Your task to perform on an android device: Search for razer kraken on bestbuy.com, select the first entry, add it to the cart, then select checkout. Image 0: 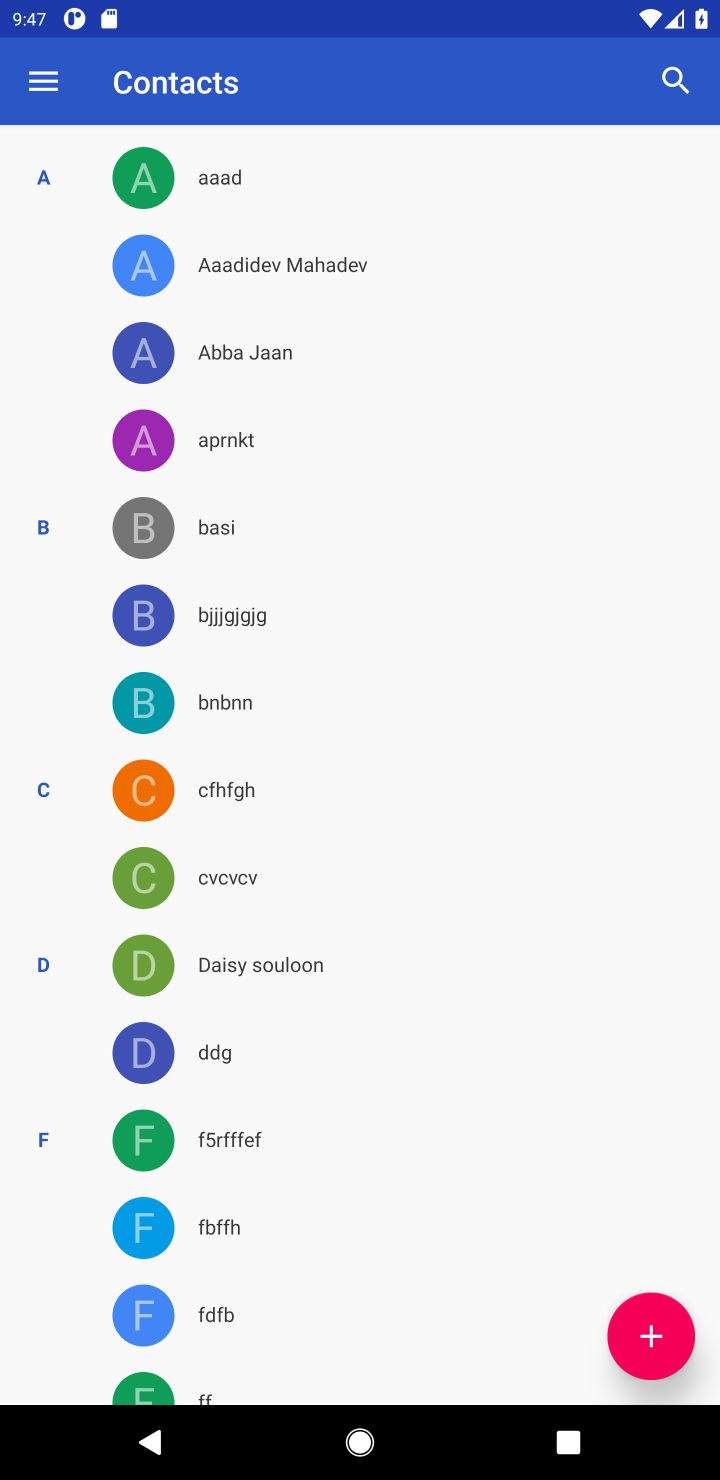
Step 0: press home button
Your task to perform on an android device: Search for razer kraken on bestbuy.com, select the first entry, add it to the cart, then select checkout. Image 1: 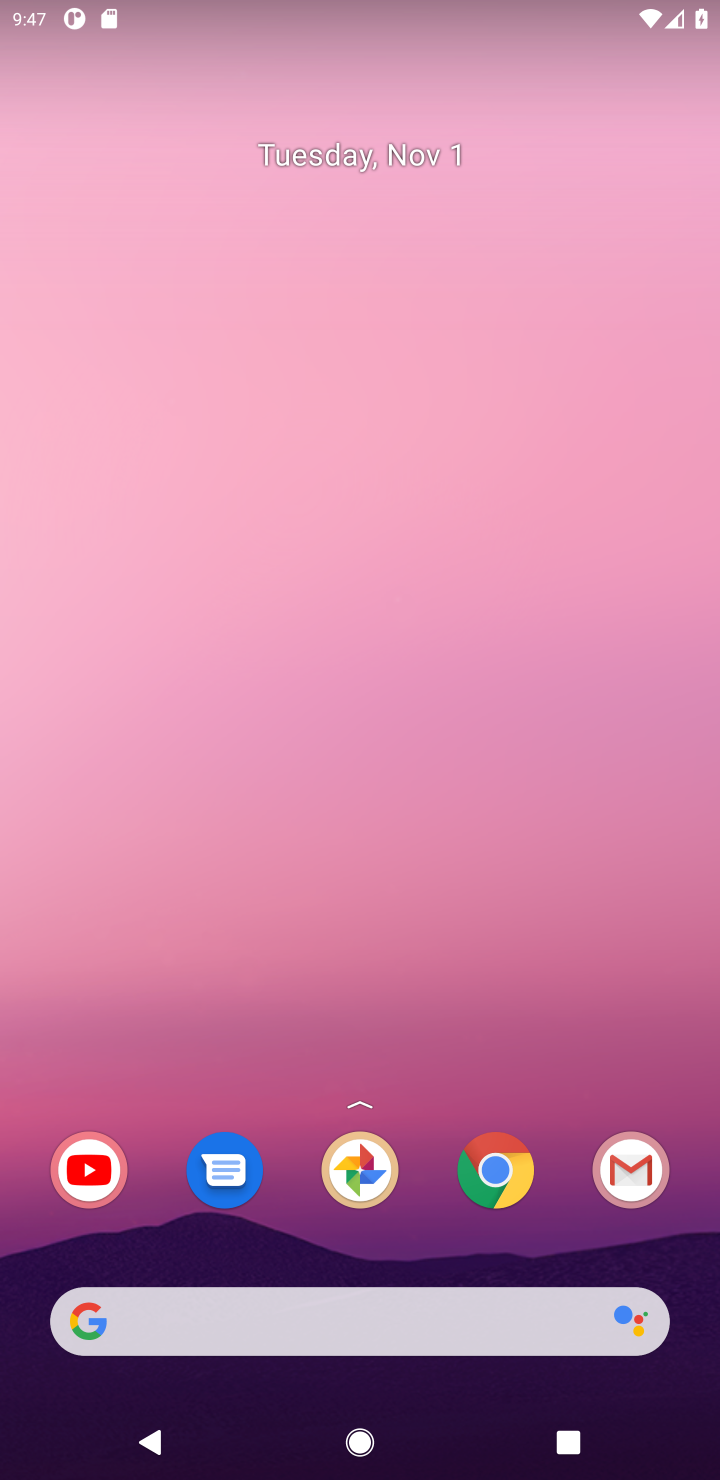
Step 1: click (500, 1175)
Your task to perform on an android device: Search for razer kraken on bestbuy.com, select the first entry, add it to the cart, then select checkout. Image 2: 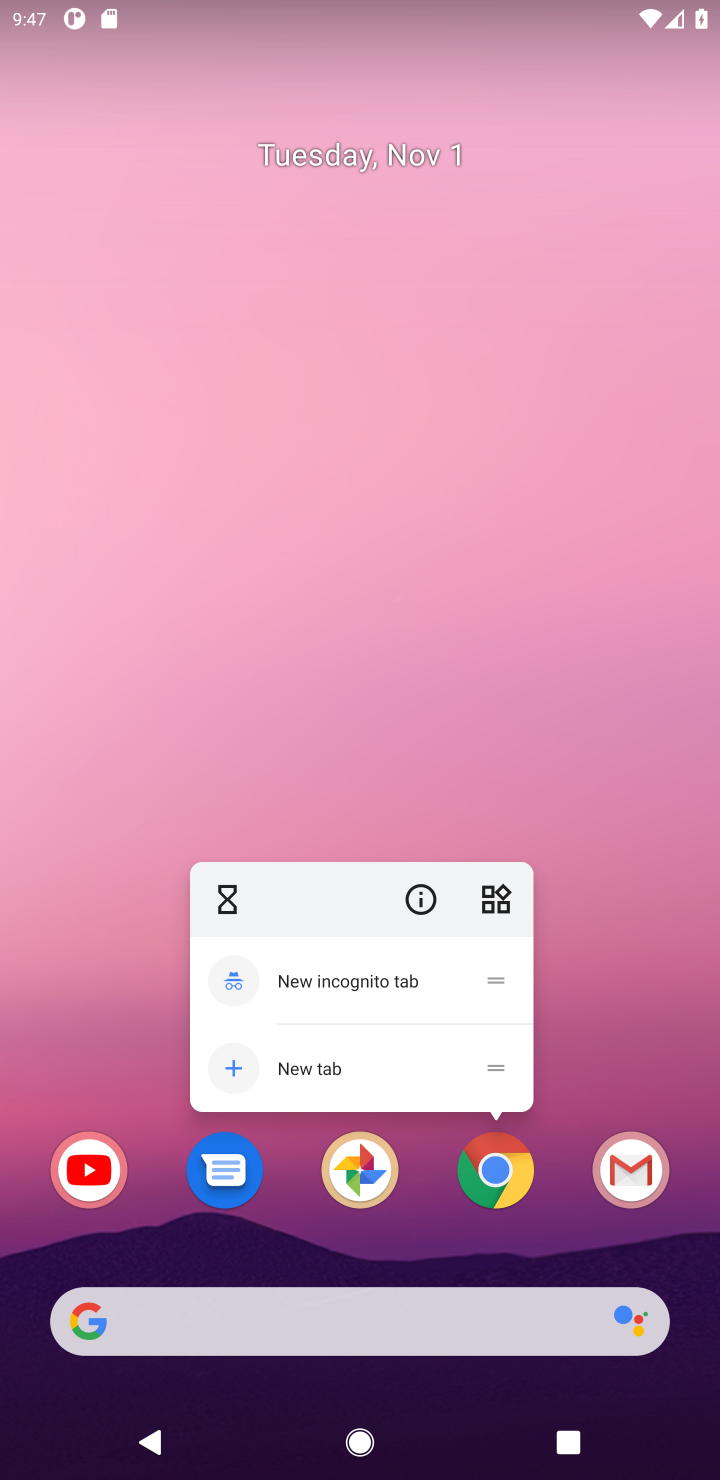
Step 2: click (521, 1194)
Your task to perform on an android device: Search for razer kraken on bestbuy.com, select the first entry, add it to the cart, then select checkout. Image 3: 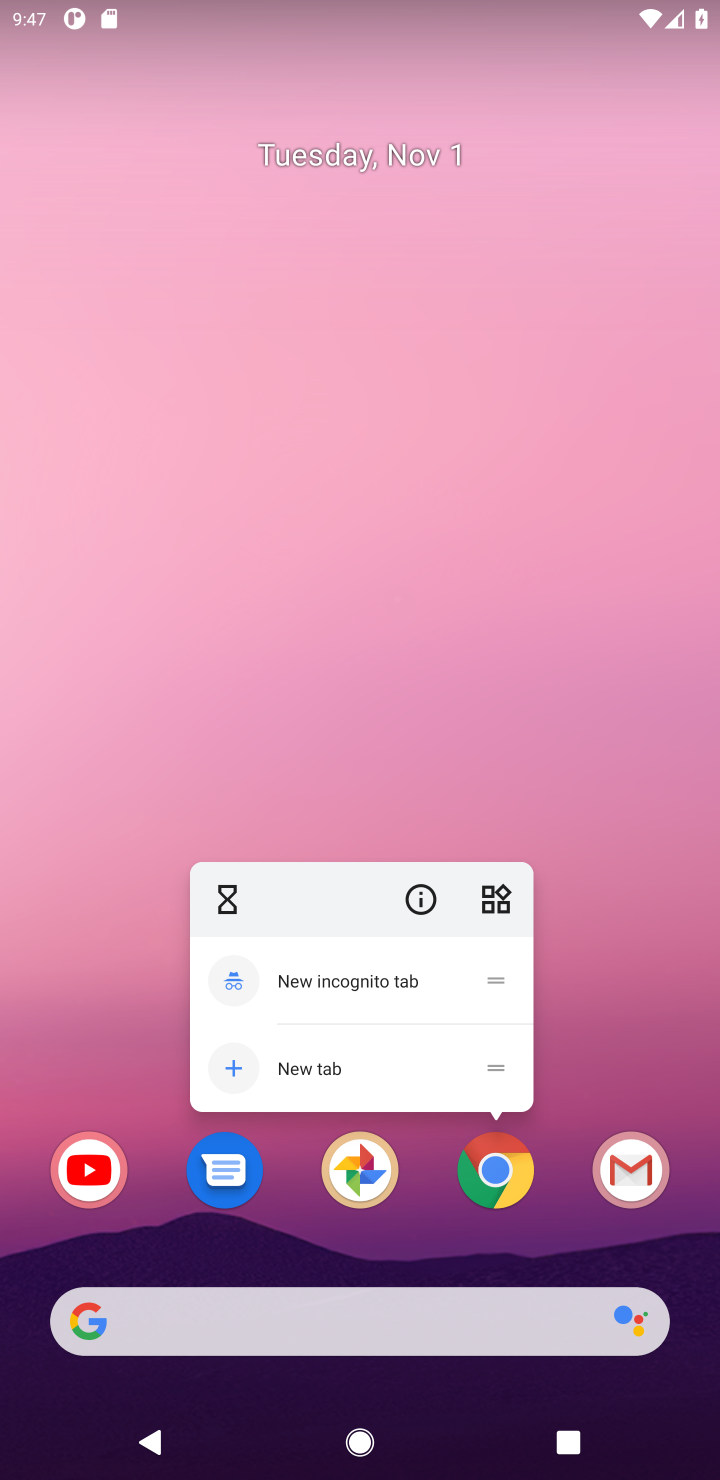
Step 3: click (516, 1165)
Your task to perform on an android device: Search for razer kraken on bestbuy.com, select the first entry, add it to the cart, then select checkout. Image 4: 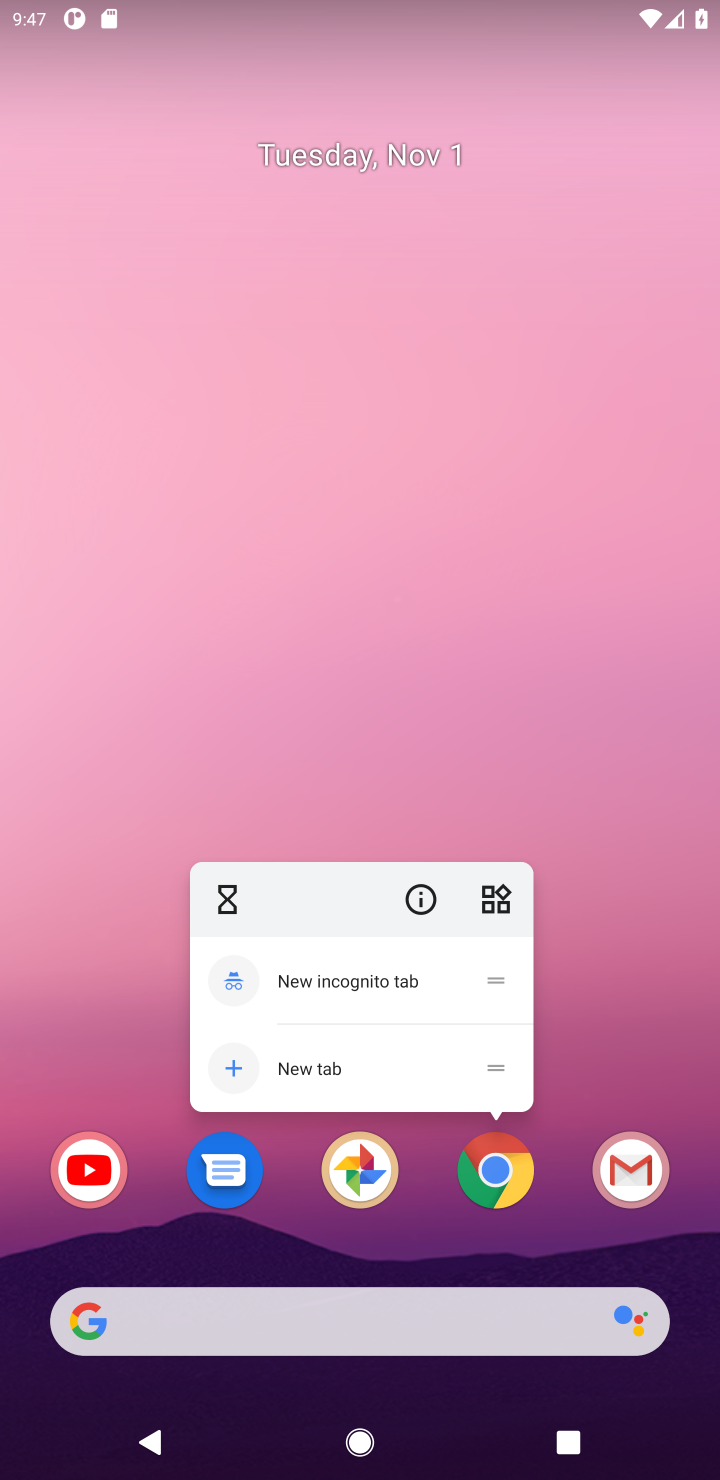
Step 4: click (496, 1187)
Your task to perform on an android device: Search for razer kraken on bestbuy.com, select the first entry, add it to the cart, then select checkout. Image 5: 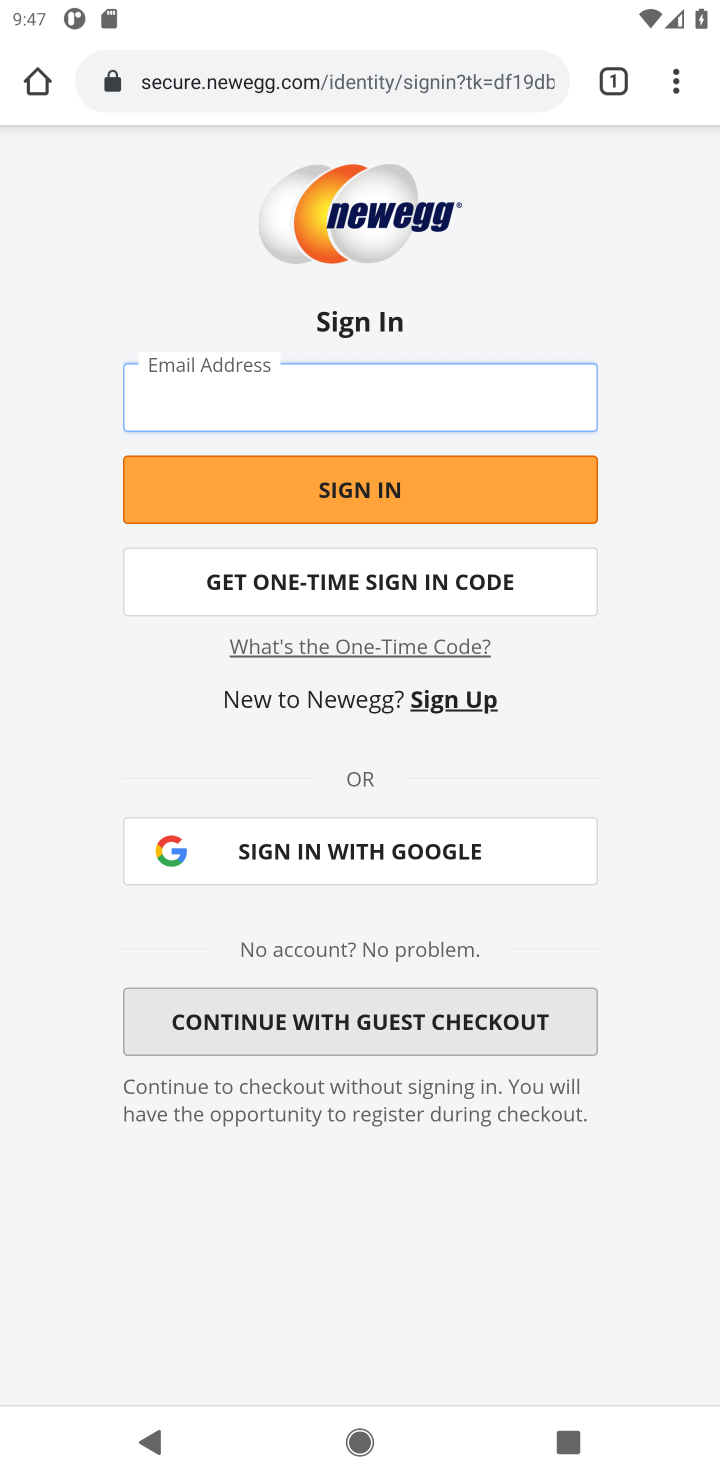
Step 5: click (407, 67)
Your task to perform on an android device: Search for razer kraken on bestbuy.com, select the first entry, add it to the cart, then select checkout. Image 6: 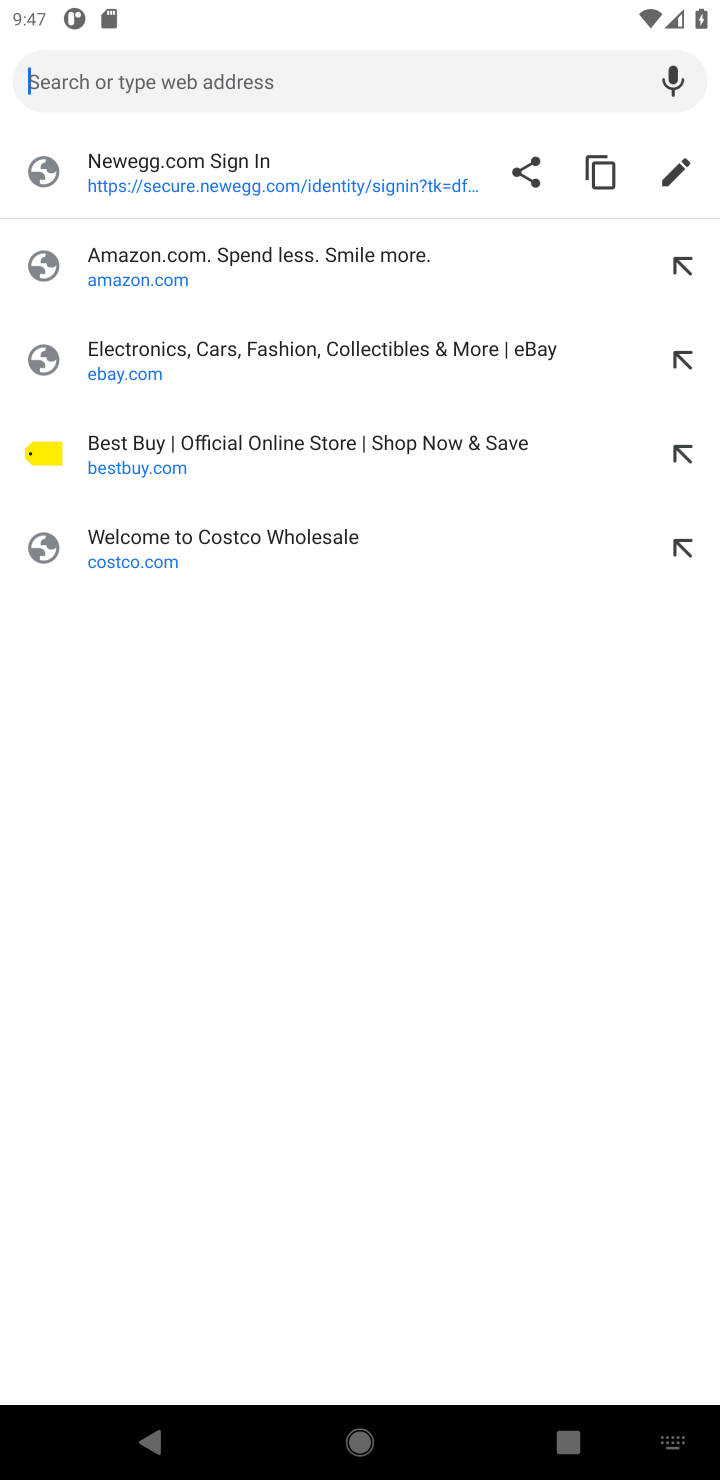
Step 6: type "bestbuy.com"
Your task to perform on an android device: Search for razer kraken on bestbuy.com, select the first entry, add it to the cart, then select checkout. Image 7: 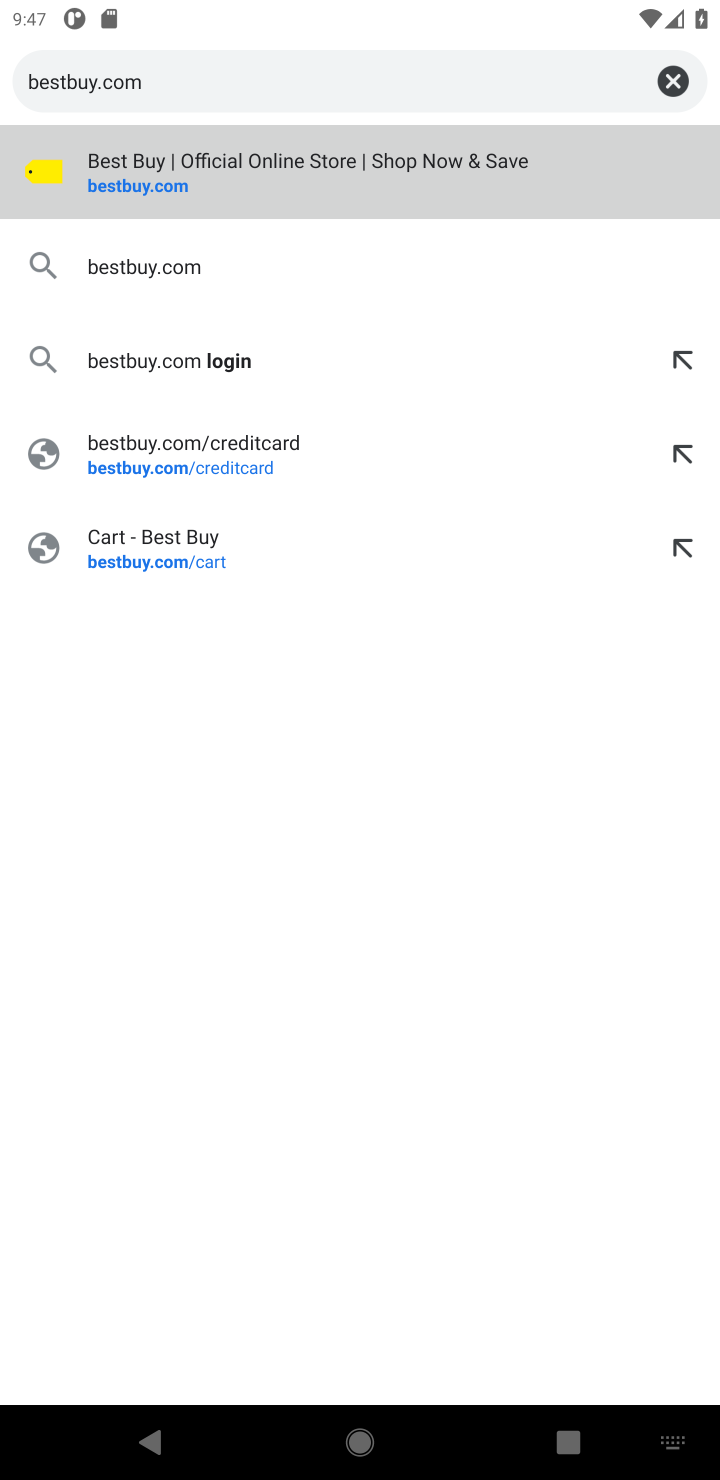
Step 7: type ""
Your task to perform on an android device: Search for razer kraken on bestbuy.com, select the first entry, add it to the cart, then select checkout. Image 8: 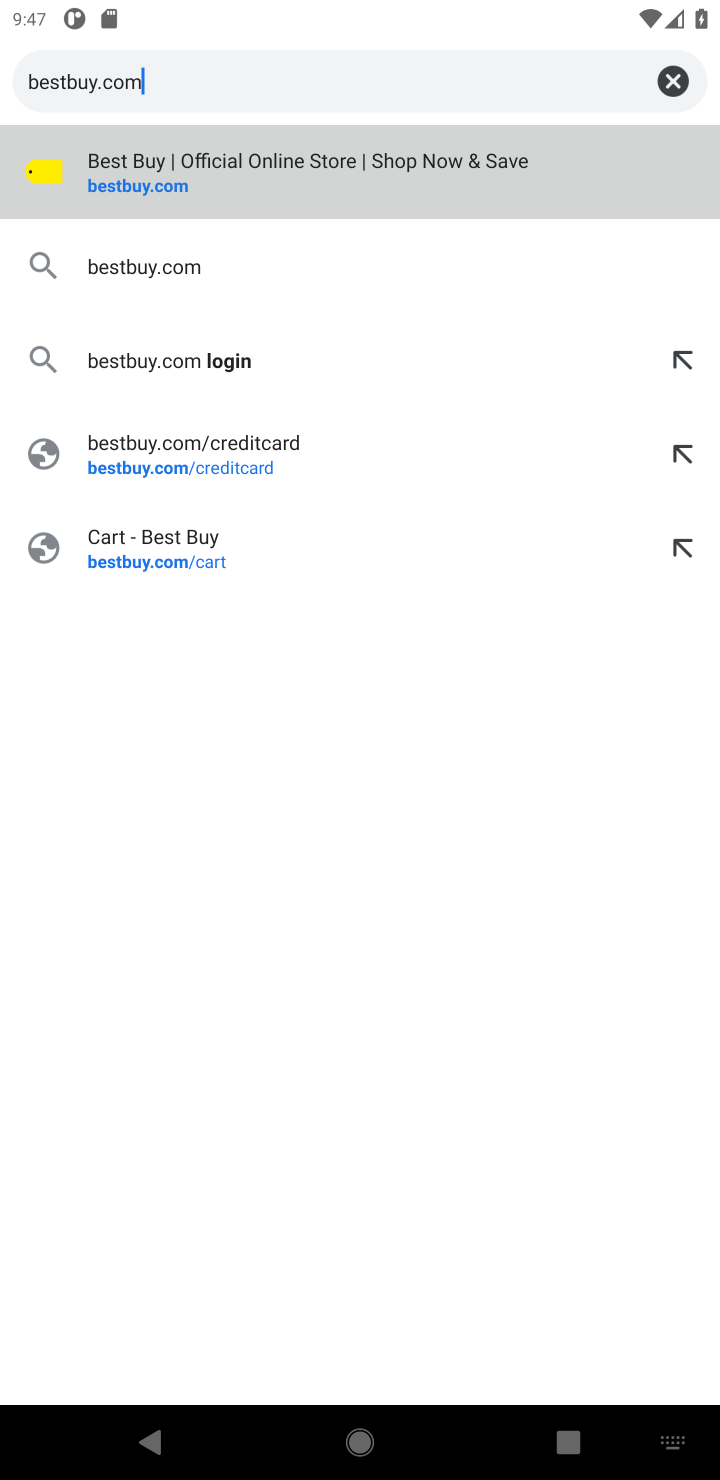
Step 8: press enter
Your task to perform on an android device: Search for razer kraken on bestbuy.com, select the first entry, add it to the cart, then select checkout. Image 9: 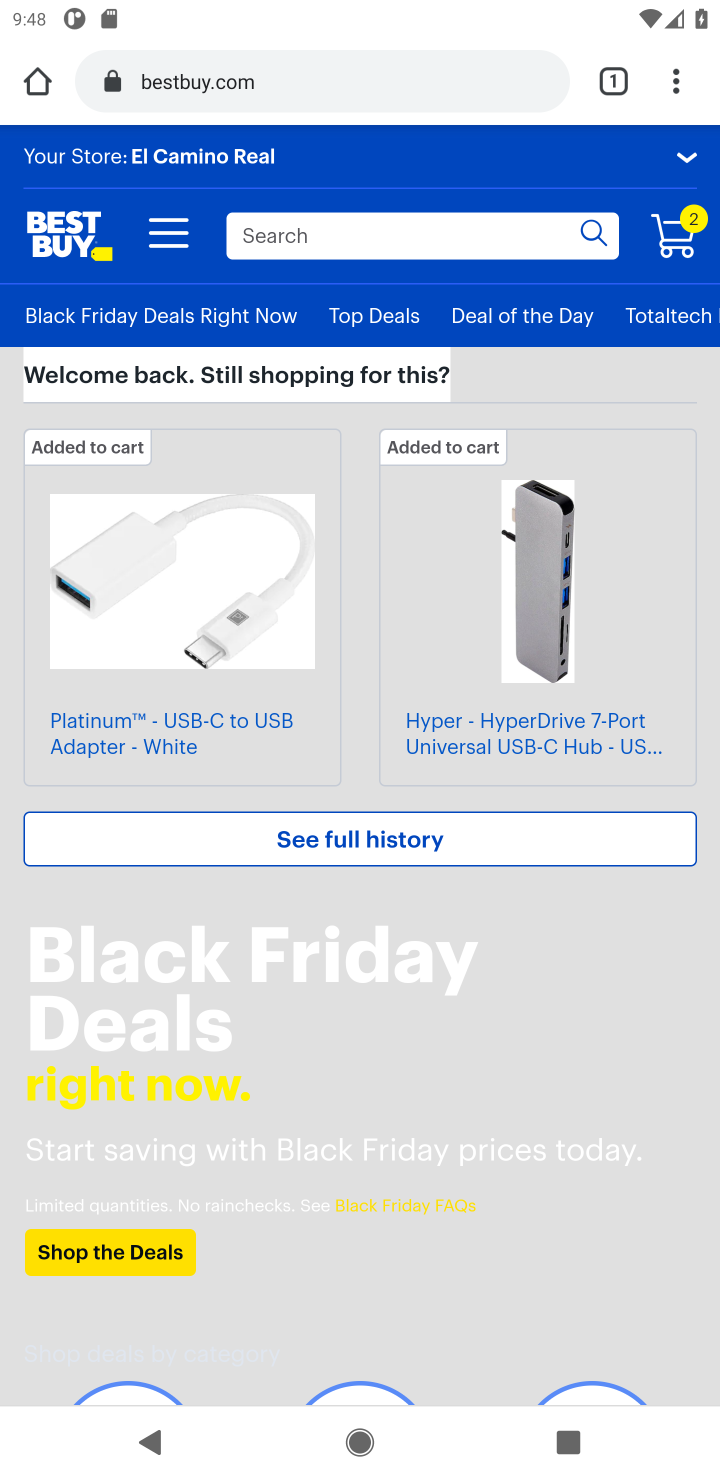
Step 9: click (389, 253)
Your task to perform on an android device: Search for razer kraken on bestbuy.com, select the first entry, add it to the cart, then select checkout. Image 10: 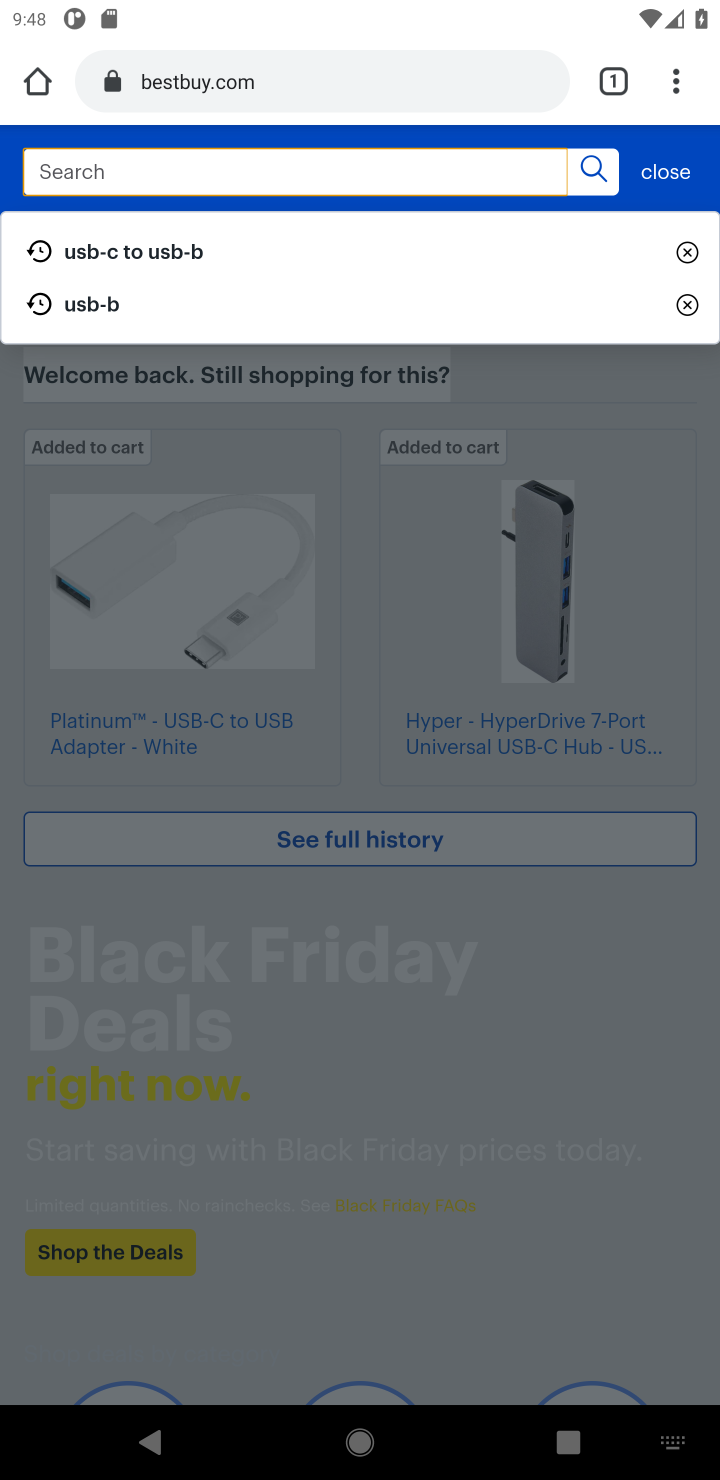
Step 10: type "razer kraken"
Your task to perform on an android device: Search for razer kraken on bestbuy.com, select the first entry, add it to the cart, then select checkout. Image 11: 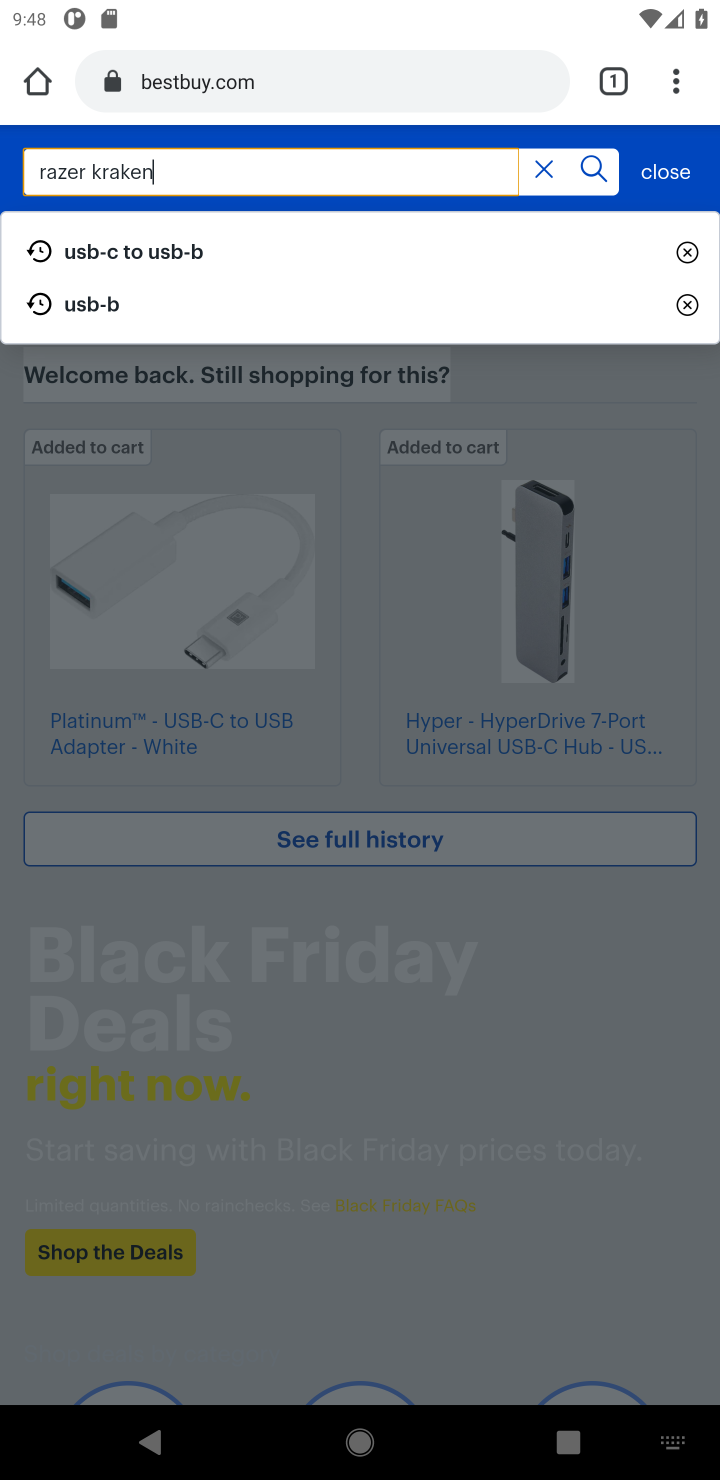
Step 11: type ""
Your task to perform on an android device: Search for razer kraken on bestbuy.com, select the first entry, add it to the cart, then select checkout. Image 12: 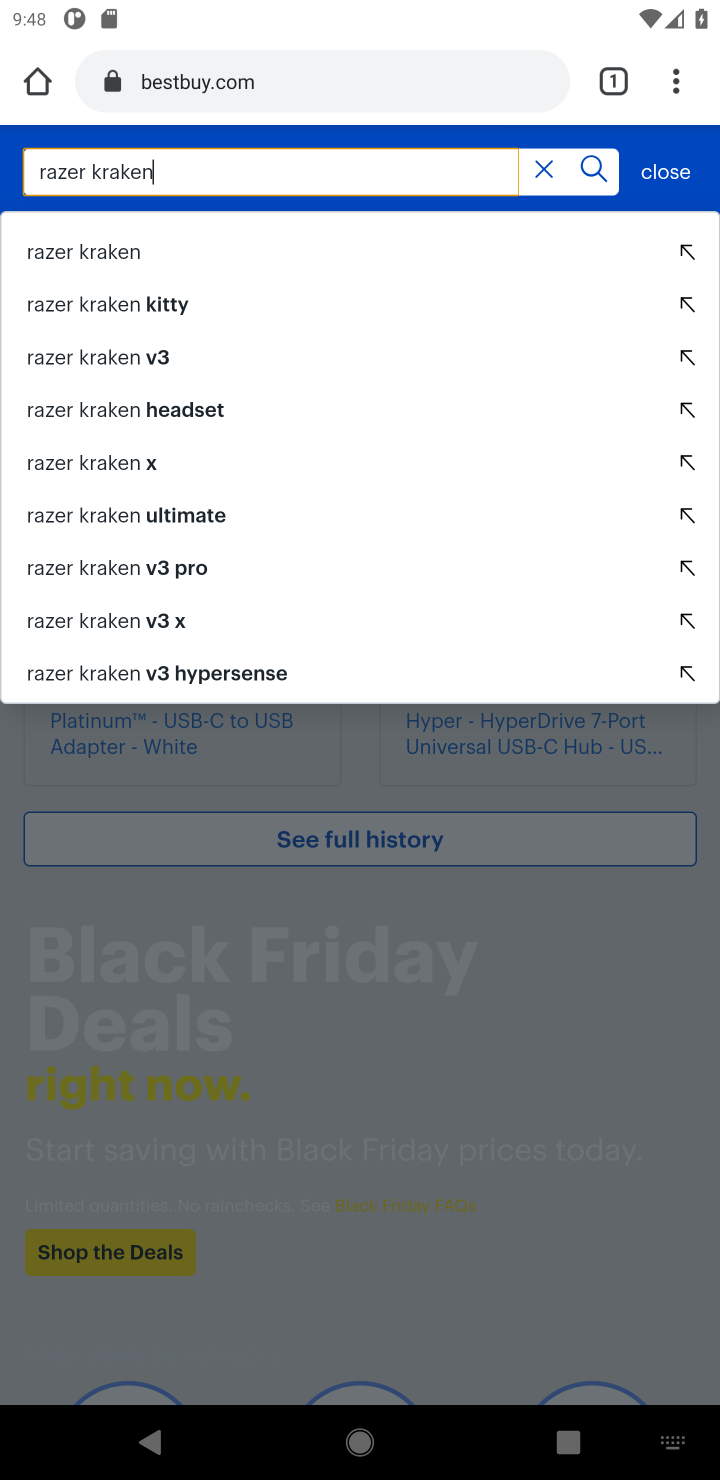
Step 12: press enter
Your task to perform on an android device: Search for razer kraken on bestbuy.com, select the first entry, add it to the cart, then select checkout. Image 13: 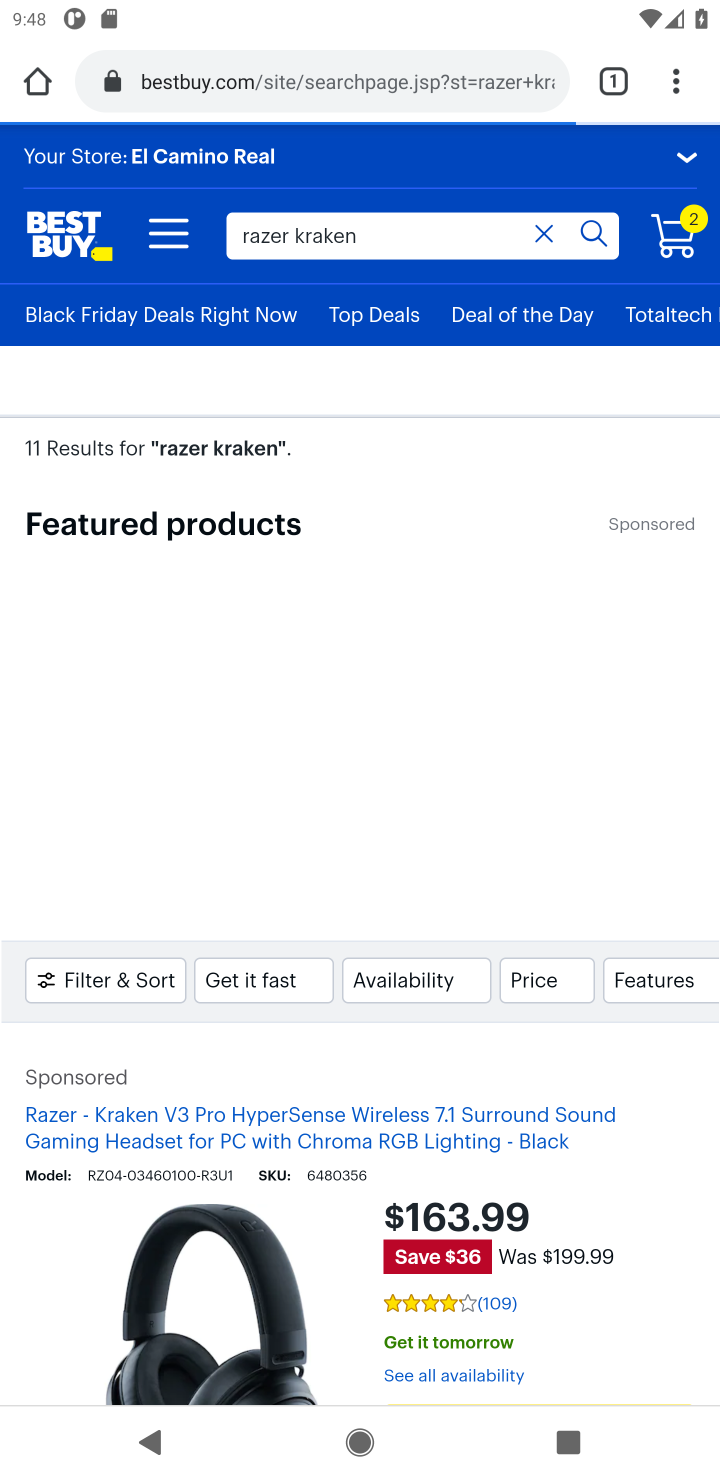
Step 13: drag from (366, 1125) to (344, 680)
Your task to perform on an android device: Search for razer kraken on bestbuy.com, select the first entry, add it to the cart, then select checkout. Image 14: 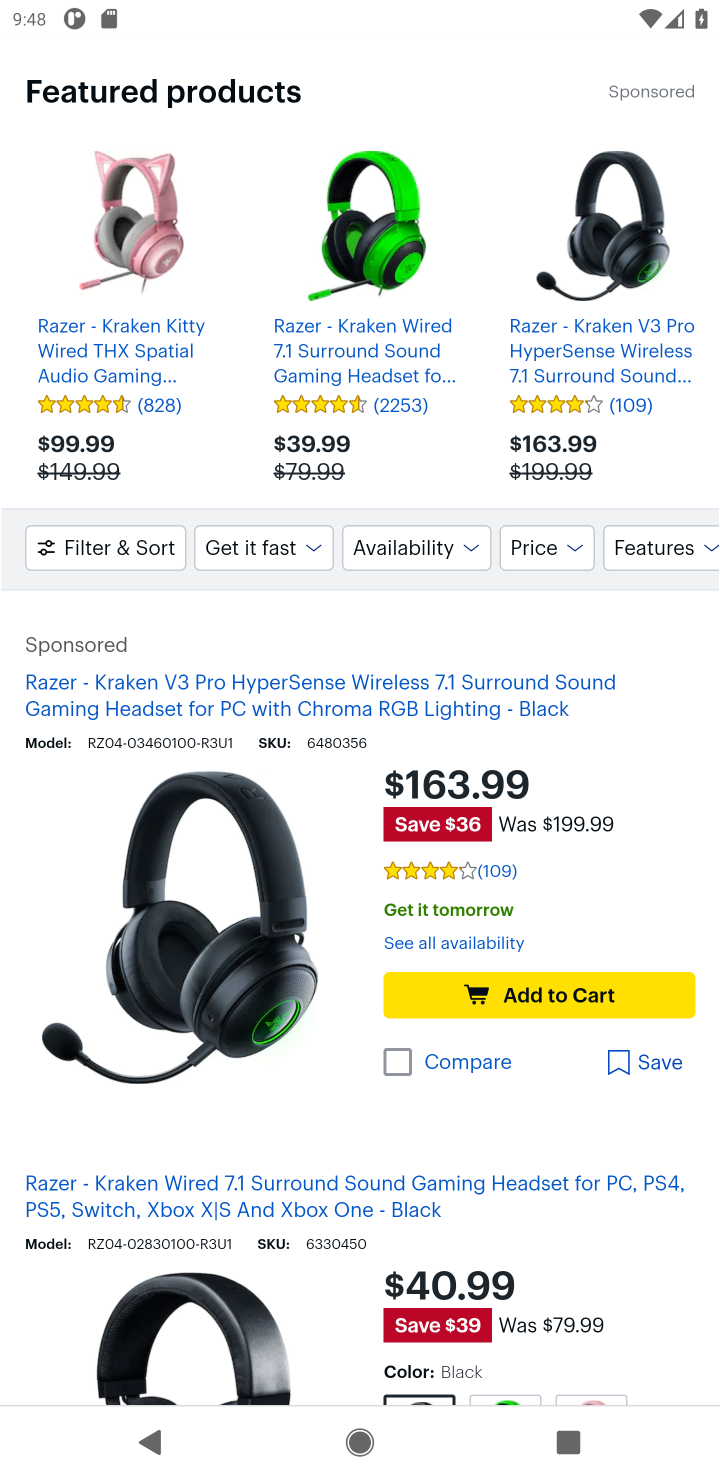
Step 14: click (270, 696)
Your task to perform on an android device: Search for razer kraken on bestbuy.com, select the first entry, add it to the cart, then select checkout. Image 15: 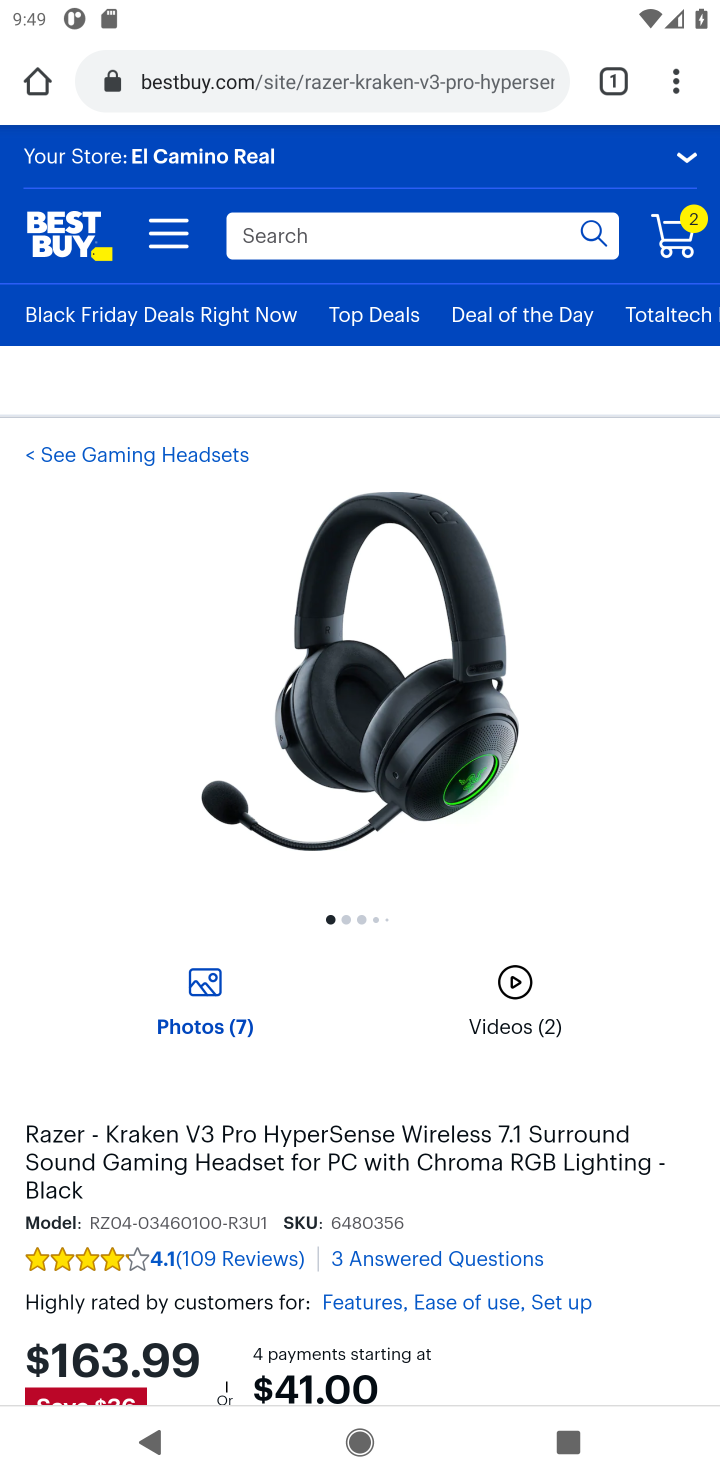
Step 15: drag from (615, 1210) to (548, 346)
Your task to perform on an android device: Search for razer kraken on bestbuy.com, select the first entry, add it to the cart, then select checkout. Image 16: 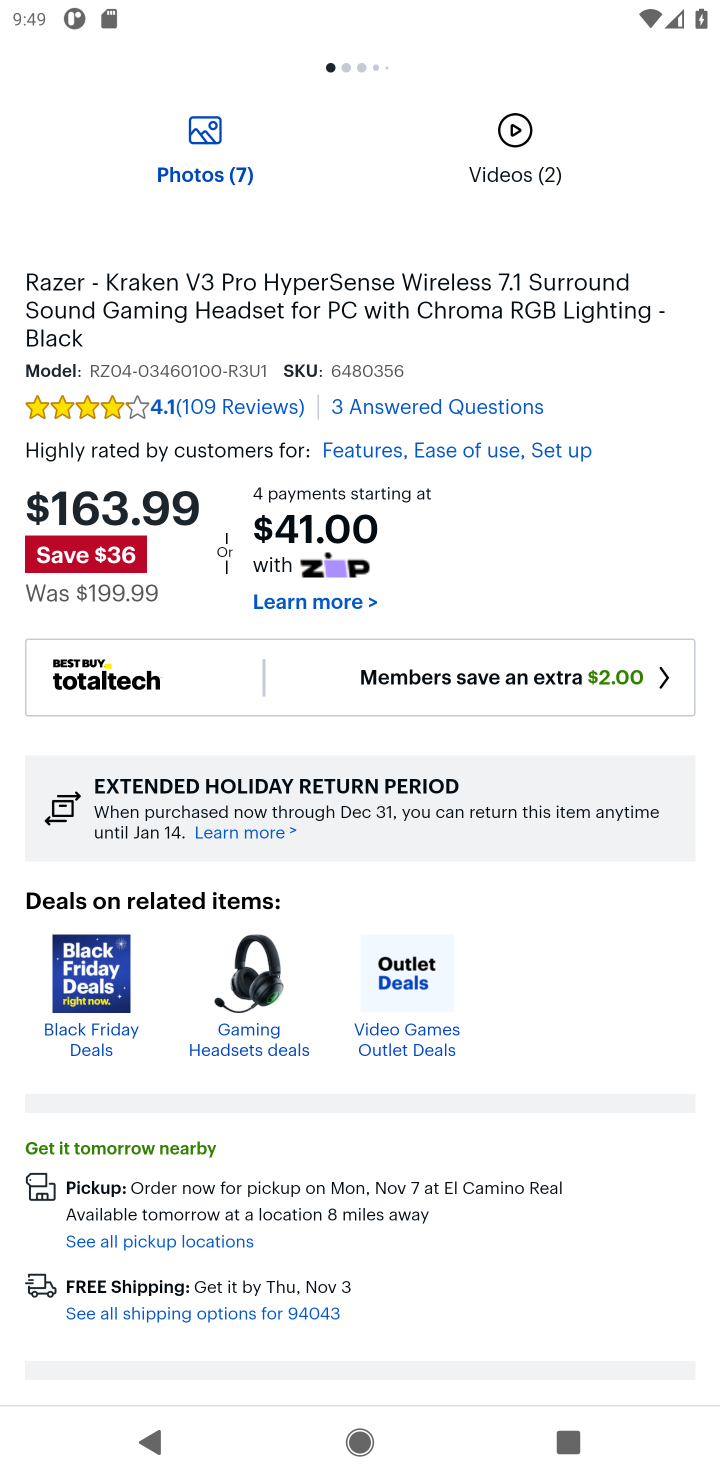
Step 16: drag from (485, 1198) to (498, 892)
Your task to perform on an android device: Search for razer kraken on bestbuy.com, select the first entry, add it to the cart, then select checkout. Image 17: 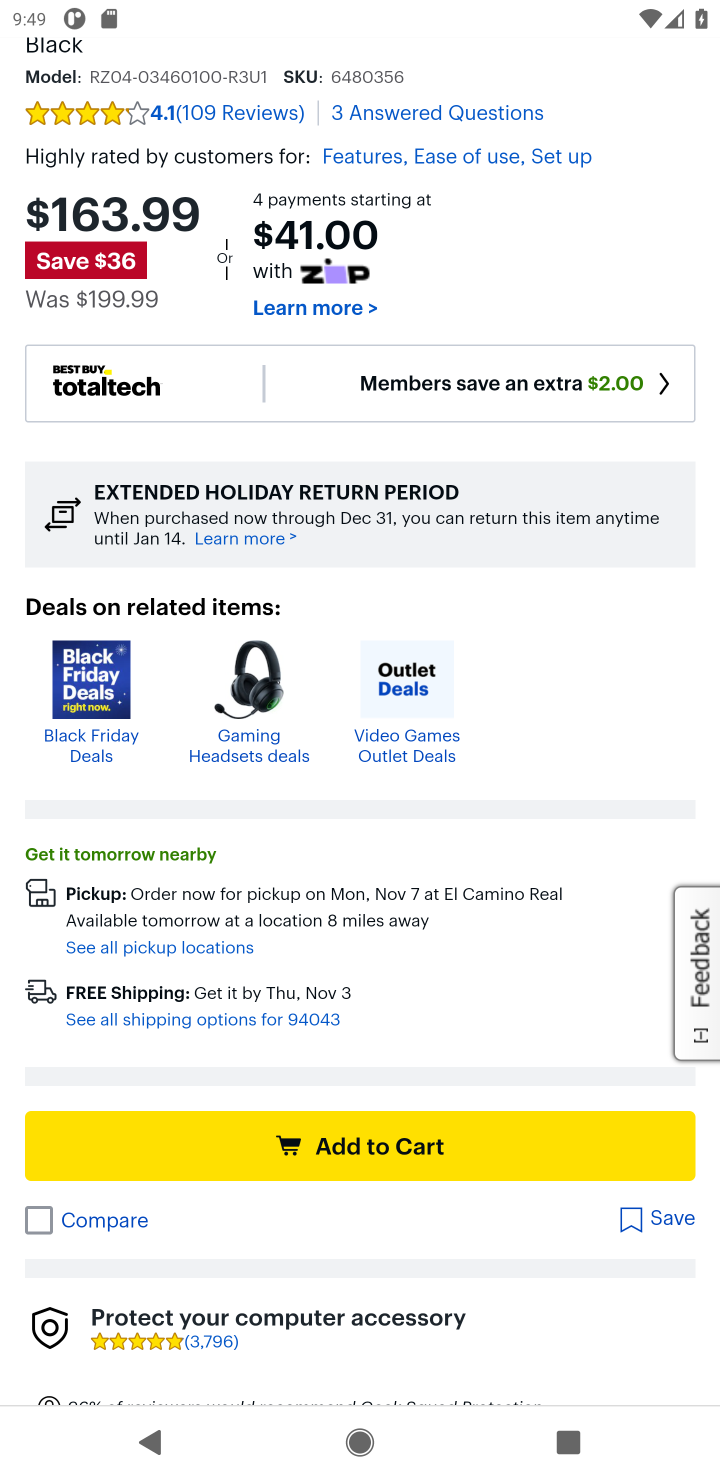
Step 17: click (458, 1150)
Your task to perform on an android device: Search for razer kraken on bestbuy.com, select the first entry, add it to the cart, then select checkout. Image 18: 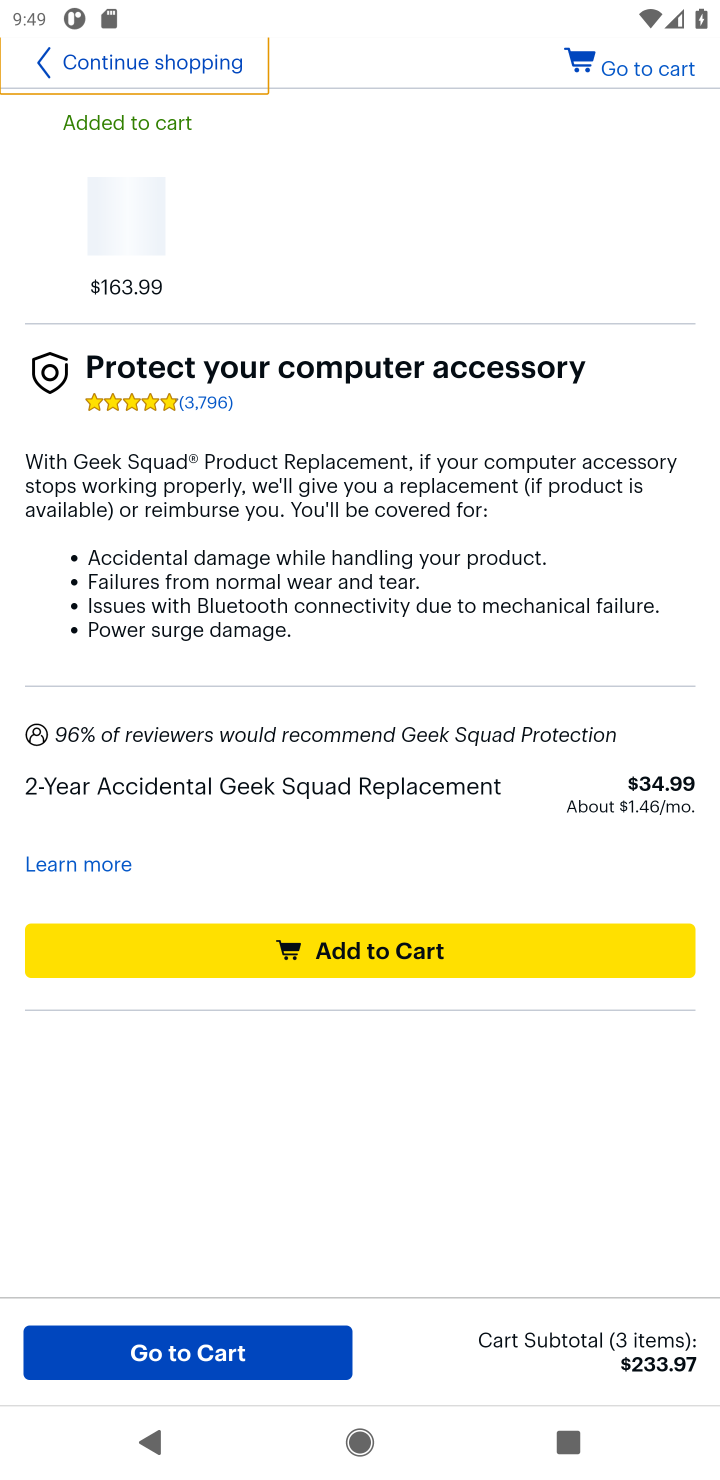
Step 18: click (302, 1348)
Your task to perform on an android device: Search for razer kraken on bestbuy.com, select the first entry, add it to the cart, then select checkout. Image 19: 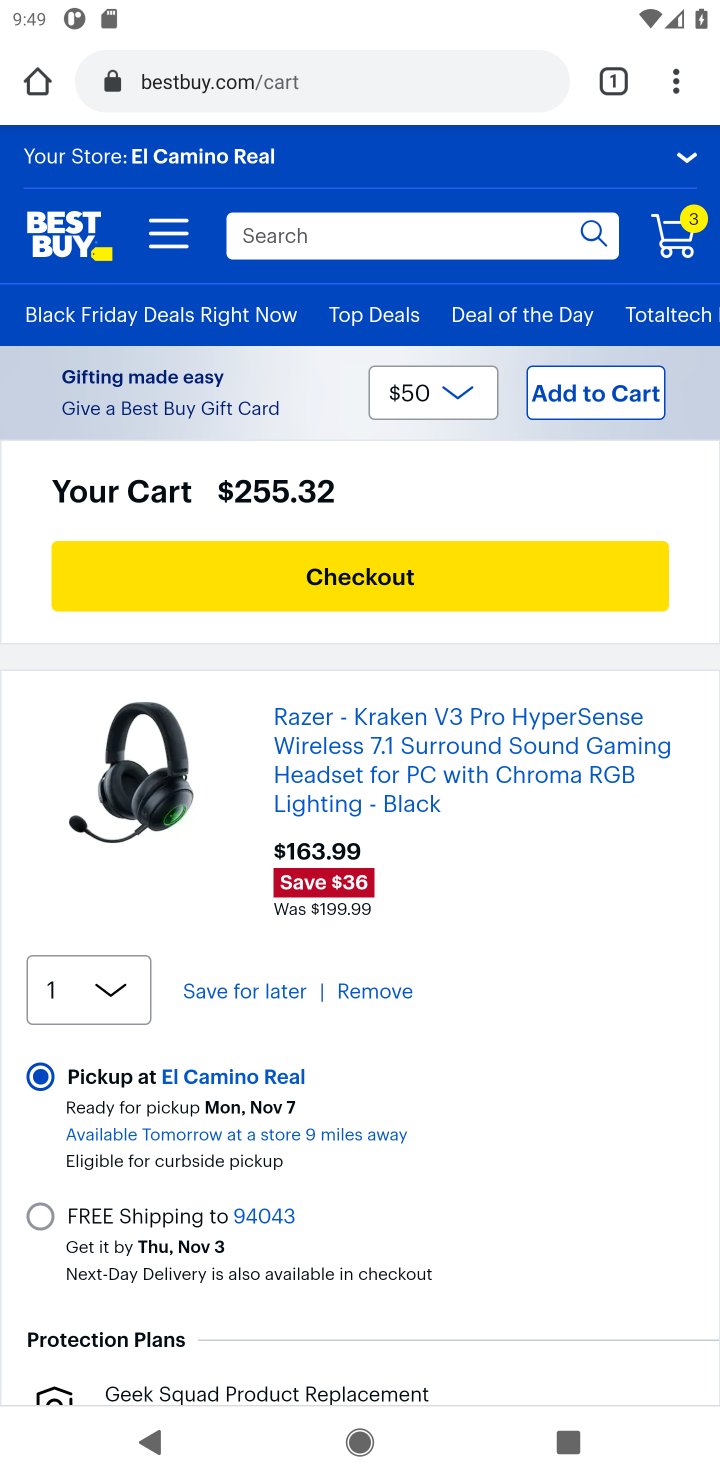
Step 19: click (422, 566)
Your task to perform on an android device: Search for razer kraken on bestbuy.com, select the first entry, add it to the cart, then select checkout. Image 20: 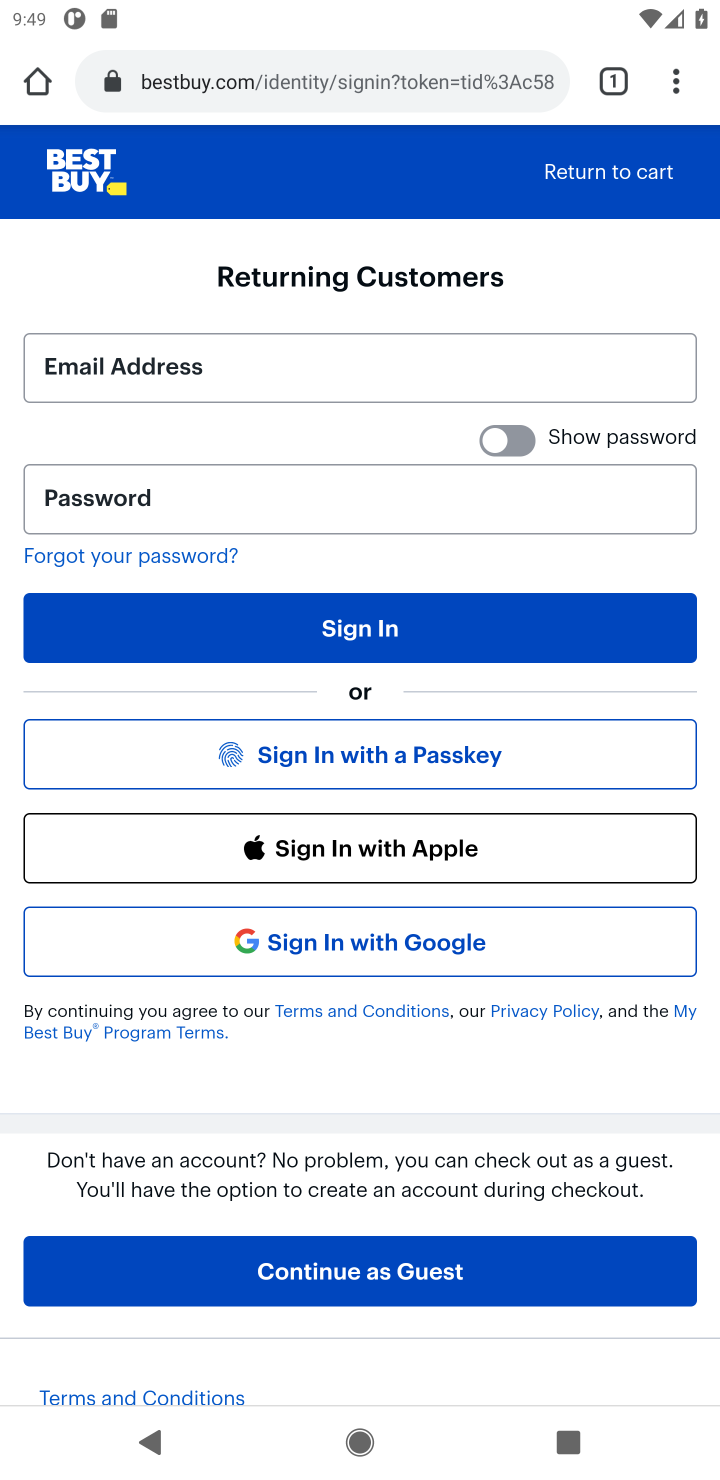
Step 20: task complete